Your task to perform on an android device: Go to internet settings Image 0: 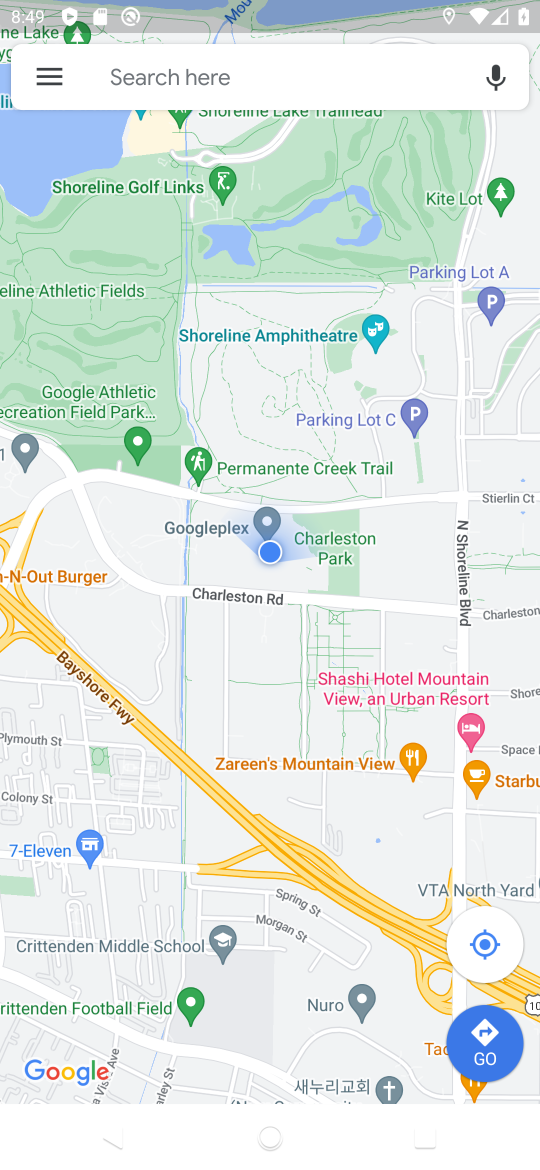
Step 0: press home button
Your task to perform on an android device: Go to internet settings Image 1: 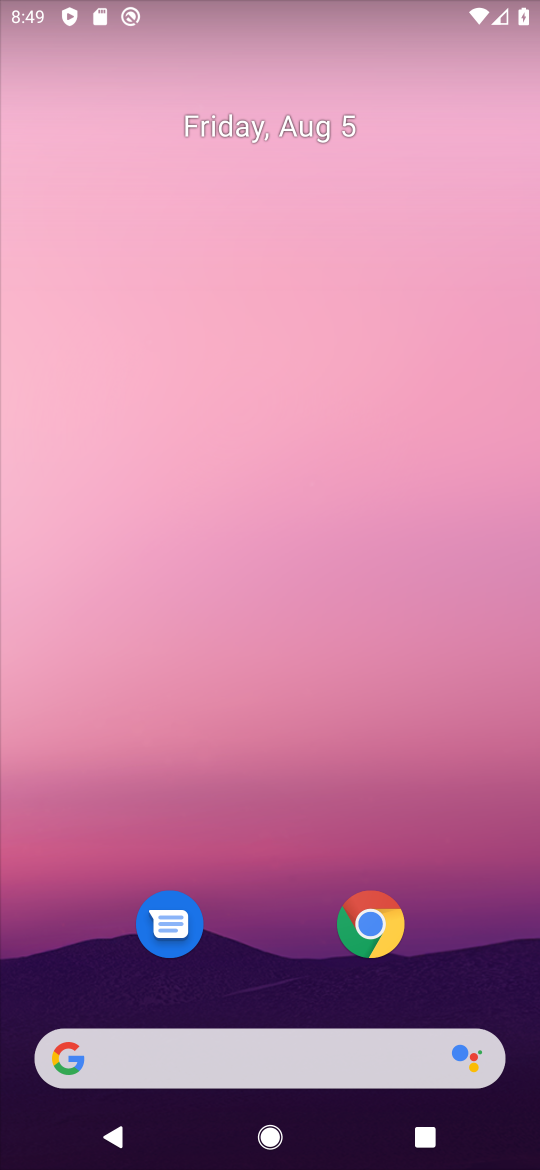
Step 1: drag from (295, 837) to (273, 4)
Your task to perform on an android device: Go to internet settings Image 2: 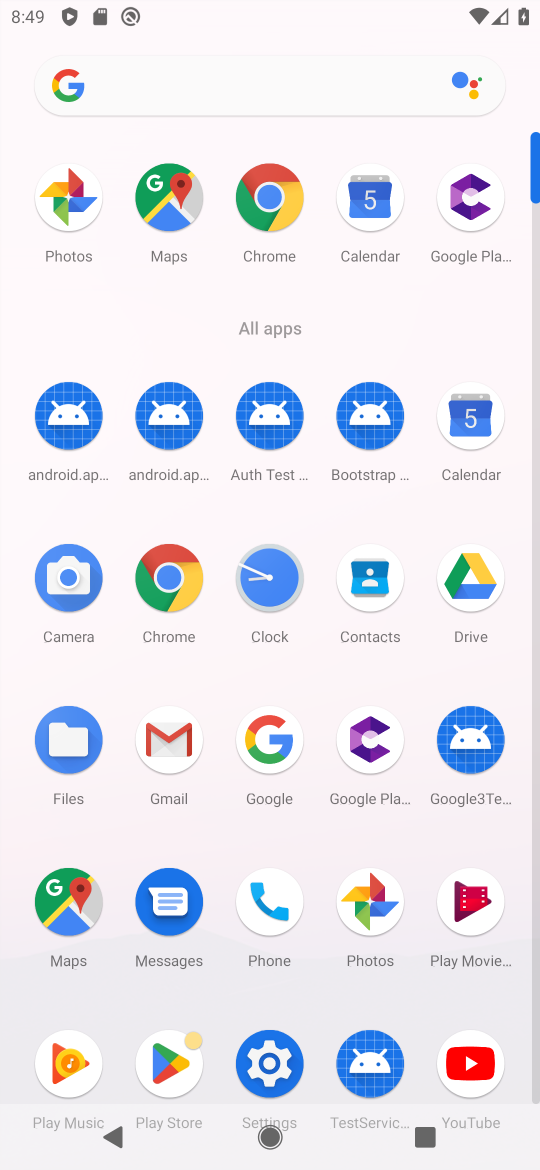
Step 2: click (269, 1069)
Your task to perform on an android device: Go to internet settings Image 3: 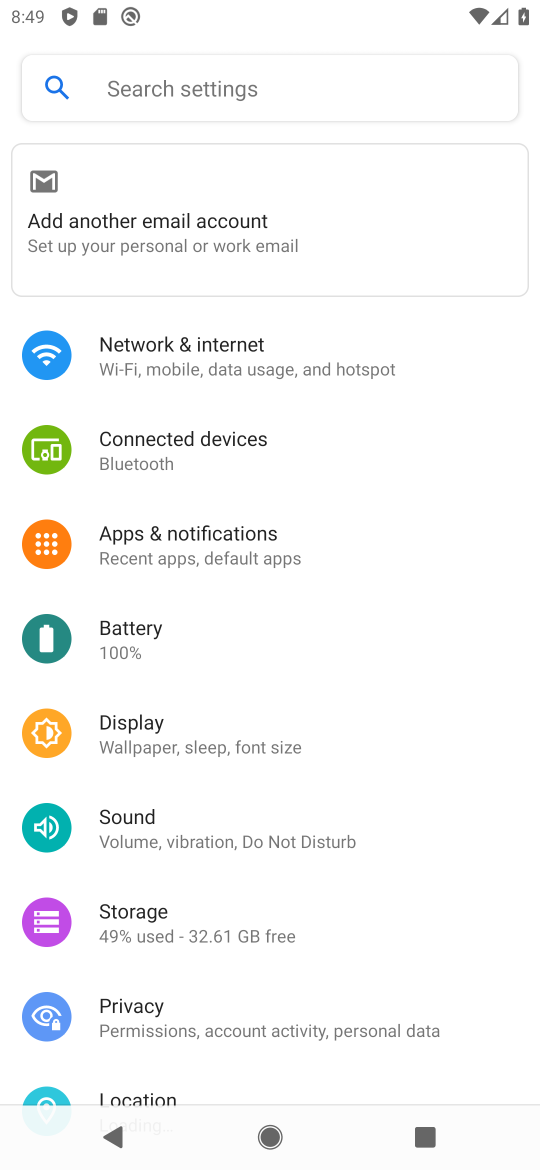
Step 3: click (119, 363)
Your task to perform on an android device: Go to internet settings Image 4: 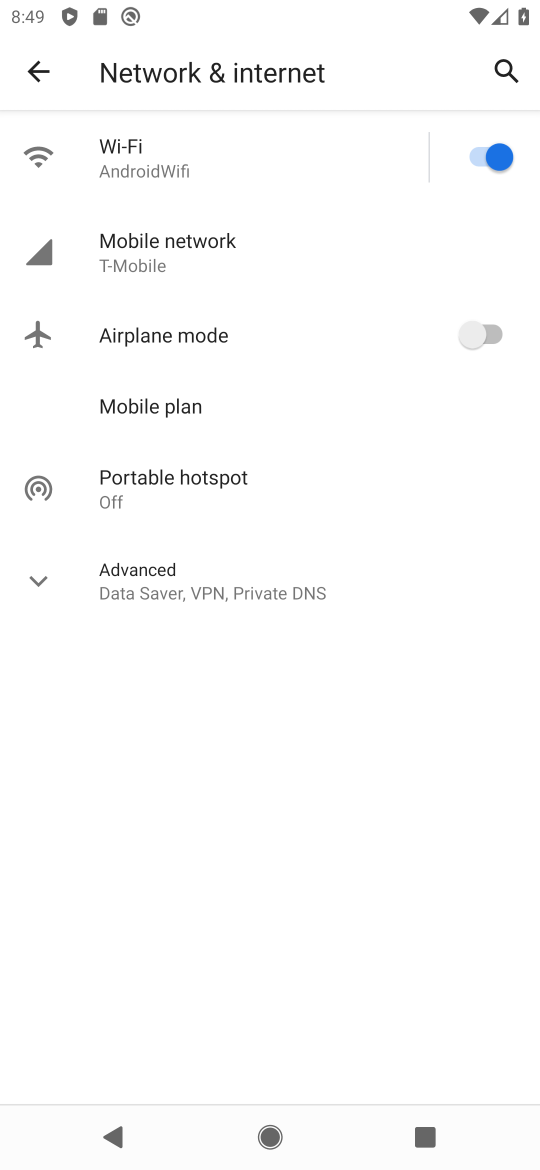
Step 4: task complete